Your task to perform on an android device: stop showing notifications on the lock screen Image 0: 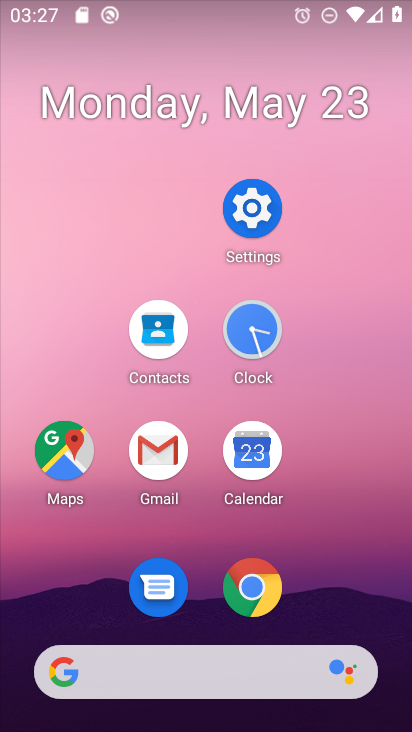
Step 0: click (241, 258)
Your task to perform on an android device: stop showing notifications on the lock screen Image 1: 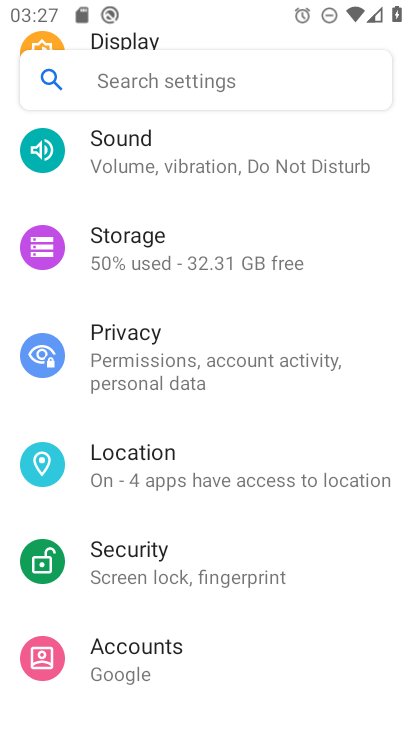
Step 1: drag from (191, 550) to (226, 229)
Your task to perform on an android device: stop showing notifications on the lock screen Image 2: 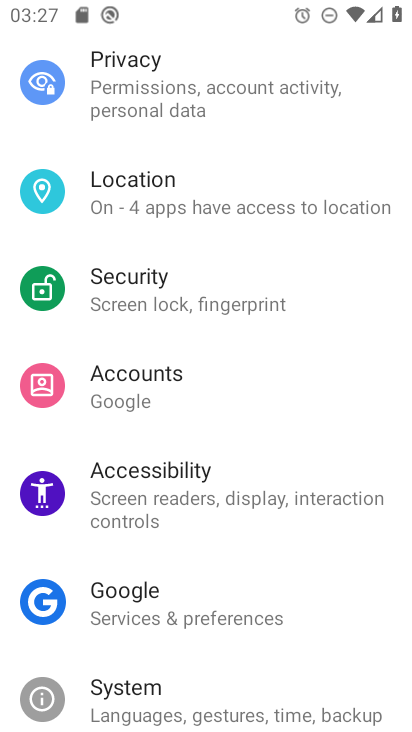
Step 2: drag from (191, 226) to (187, 573)
Your task to perform on an android device: stop showing notifications on the lock screen Image 3: 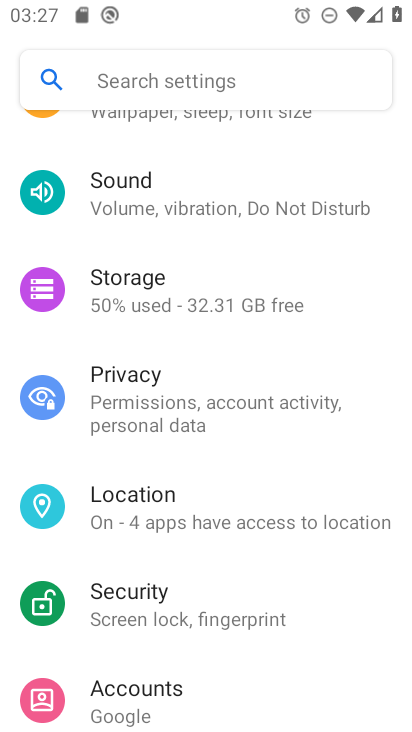
Step 3: drag from (212, 101) to (215, 431)
Your task to perform on an android device: stop showing notifications on the lock screen Image 4: 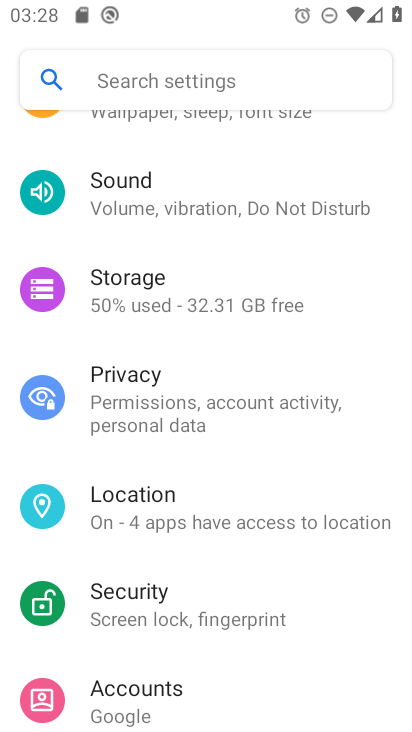
Step 4: drag from (215, 222) to (222, 719)
Your task to perform on an android device: stop showing notifications on the lock screen Image 5: 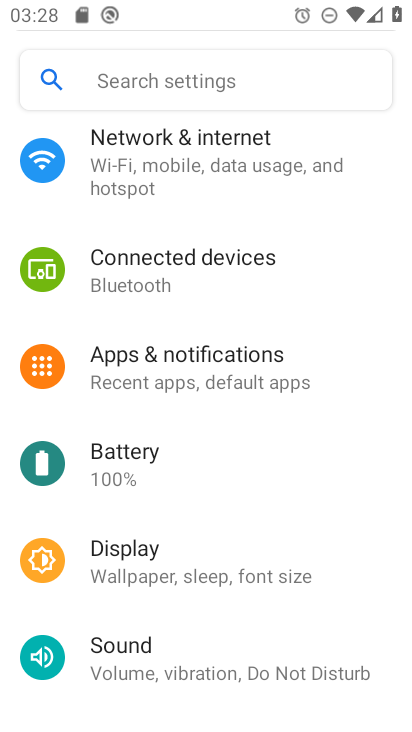
Step 5: click (210, 396)
Your task to perform on an android device: stop showing notifications on the lock screen Image 6: 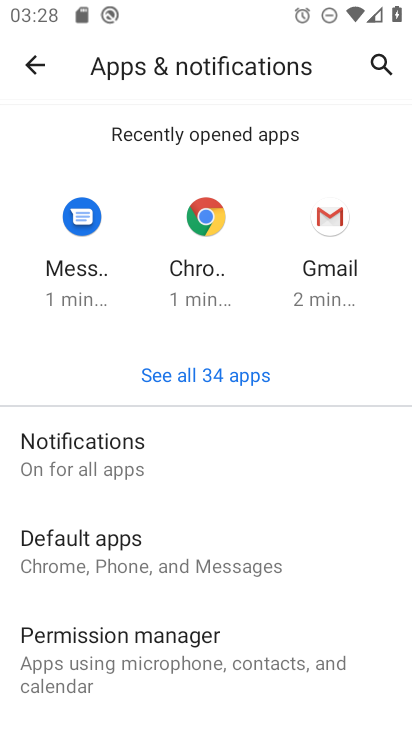
Step 6: click (160, 458)
Your task to perform on an android device: stop showing notifications on the lock screen Image 7: 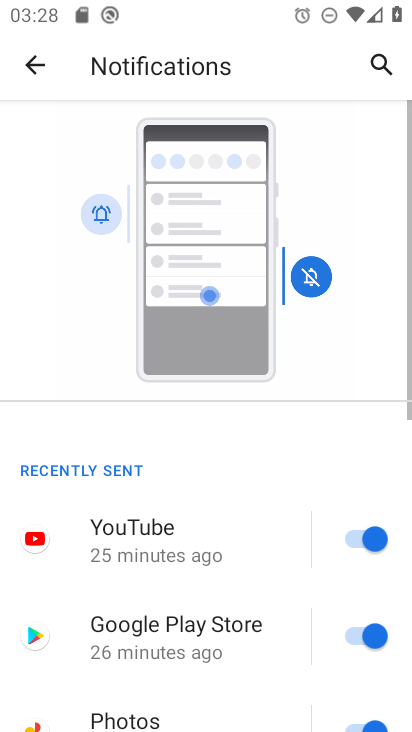
Step 7: drag from (174, 621) to (243, 10)
Your task to perform on an android device: stop showing notifications on the lock screen Image 8: 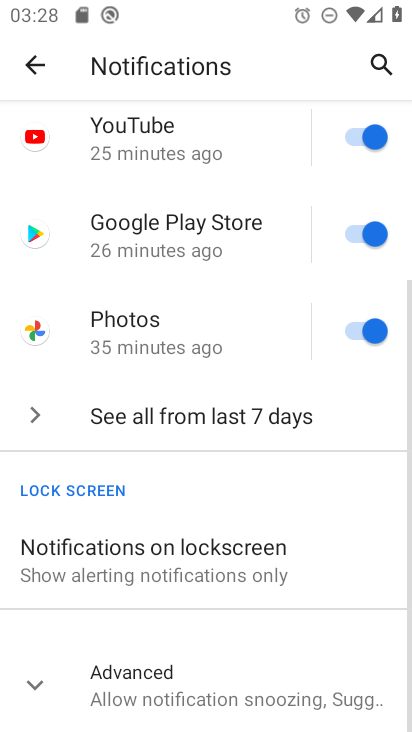
Step 8: click (232, 575)
Your task to perform on an android device: stop showing notifications on the lock screen Image 9: 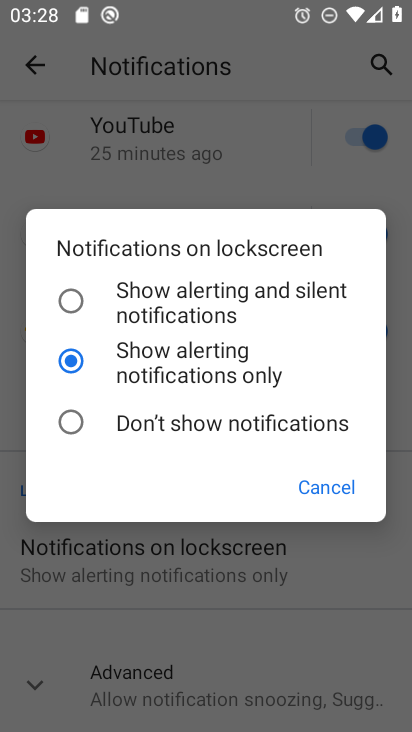
Step 9: click (155, 415)
Your task to perform on an android device: stop showing notifications on the lock screen Image 10: 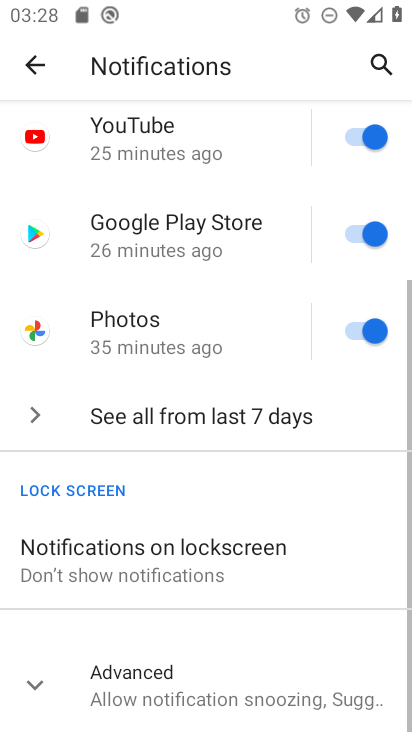
Step 10: task complete